Your task to perform on an android device: remove spam from my inbox in the gmail app Image 0: 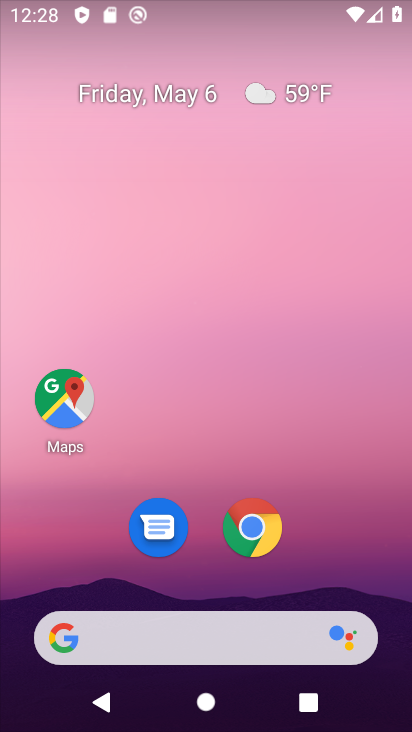
Step 0: drag from (323, 556) to (277, 34)
Your task to perform on an android device: remove spam from my inbox in the gmail app Image 1: 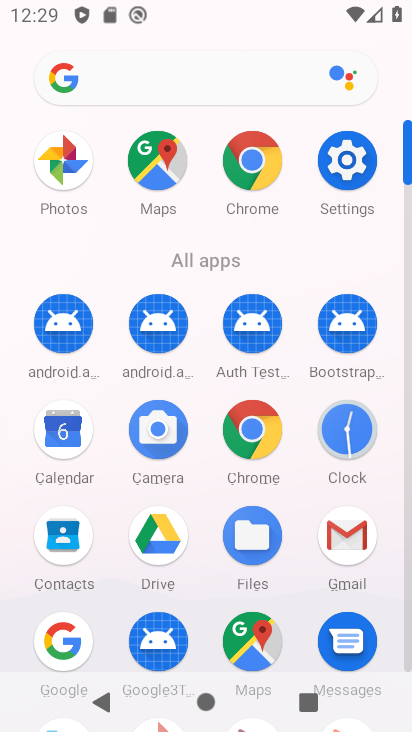
Step 1: click (349, 535)
Your task to perform on an android device: remove spam from my inbox in the gmail app Image 2: 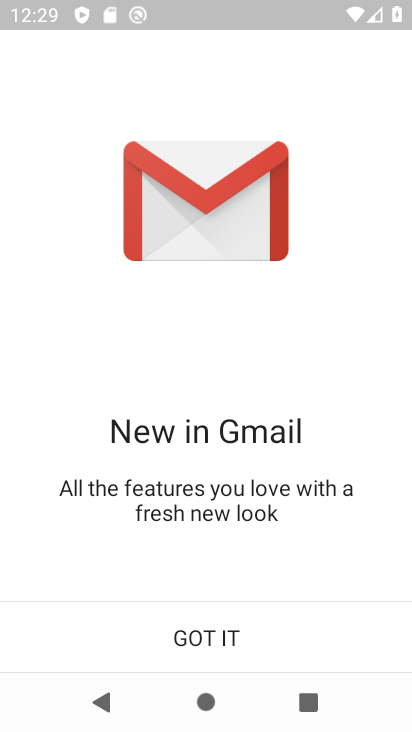
Step 2: click (210, 628)
Your task to perform on an android device: remove spam from my inbox in the gmail app Image 3: 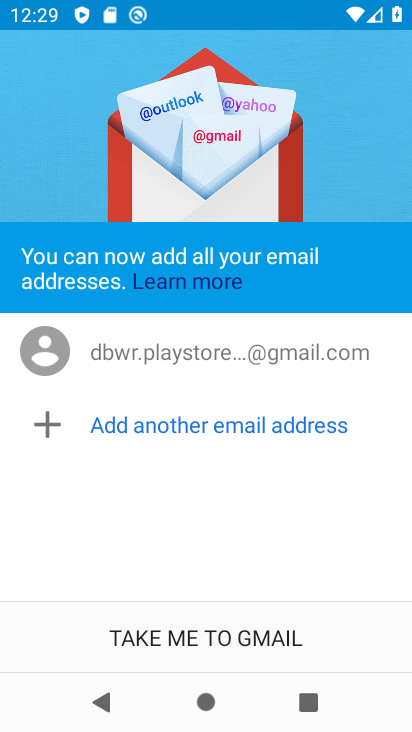
Step 3: click (210, 628)
Your task to perform on an android device: remove spam from my inbox in the gmail app Image 4: 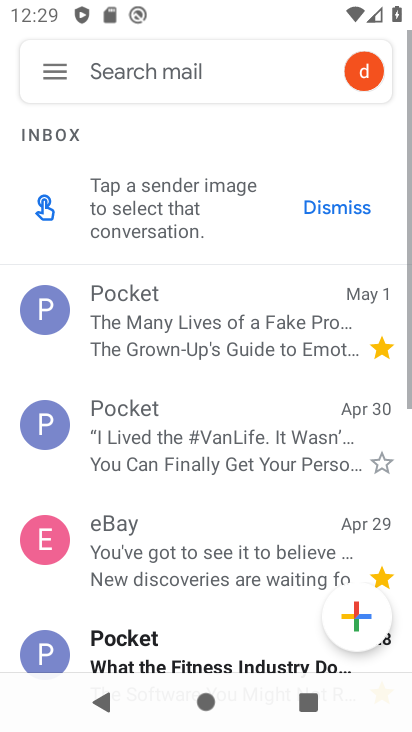
Step 4: click (50, 71)
Your task to perform on an android device: remove spam from my inbox in the gmail app Image 5: 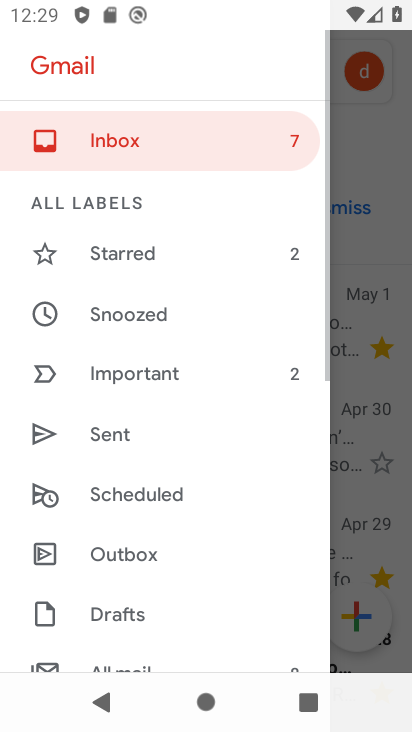
Step 5: drag from (146, 478) to (141, 364)
Your task to perform on an android device: remove spam from my inbox in the gmail app Image 6: 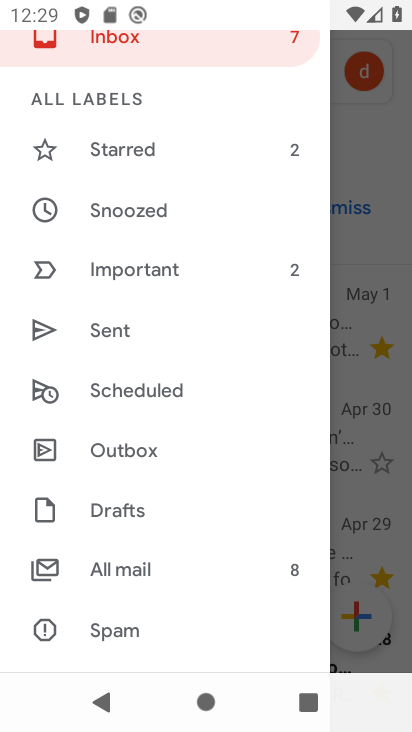
Step 6: drag from (157, 533) to (186, 458)
Your task to perform on an android device: remove spam from my inbox in the gmail app Image 7: 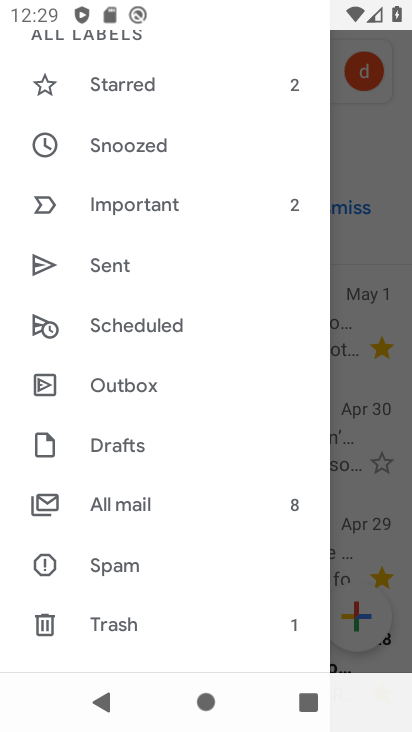
Step 7: click (135, 562)
Your task to perform on an android device: remove spam from my inbox in the gmail app Image 8: 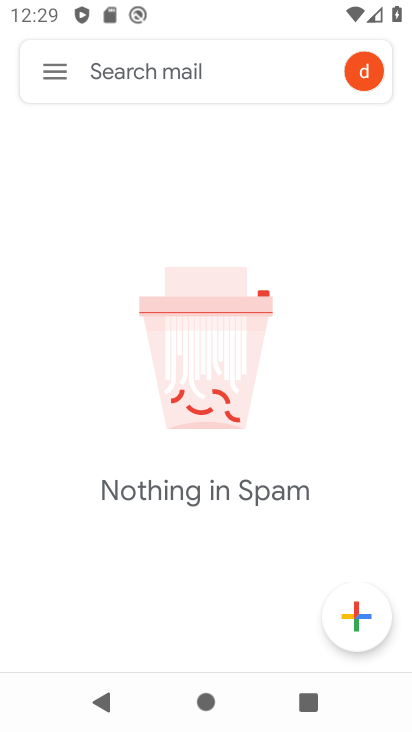
Step 8: task complete